Your task to perform on an android device: install app "Cash App" Image 0: 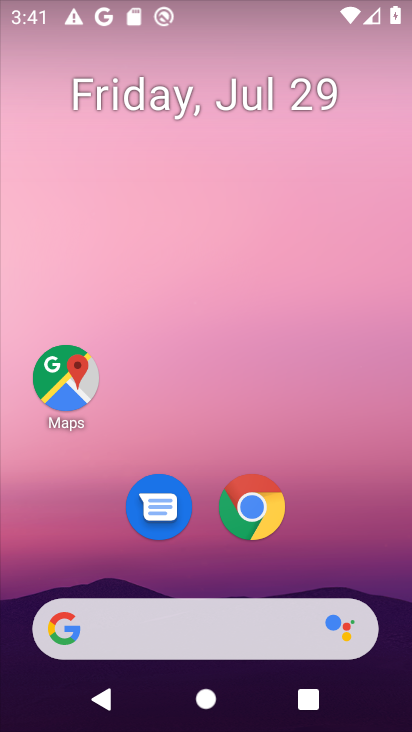
Step 0: click (182, 613)
Your task to perform on an android device: install app "Cash App" Image 1: 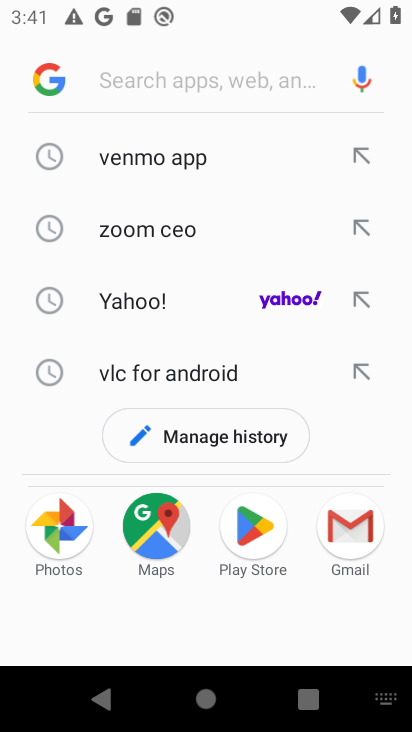
Step 1: type "cash app"
Your task to perform on an android device: install app "Cash App" Image 2: 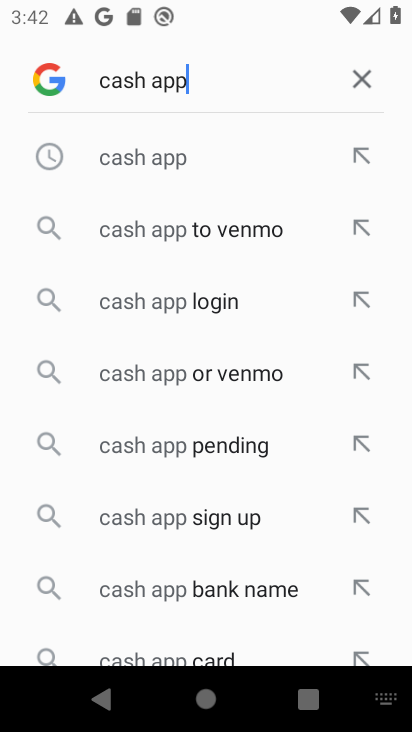
Step 2: click (191, 183)
Your task to perform on an android device: install app "Cash App" Image 3: 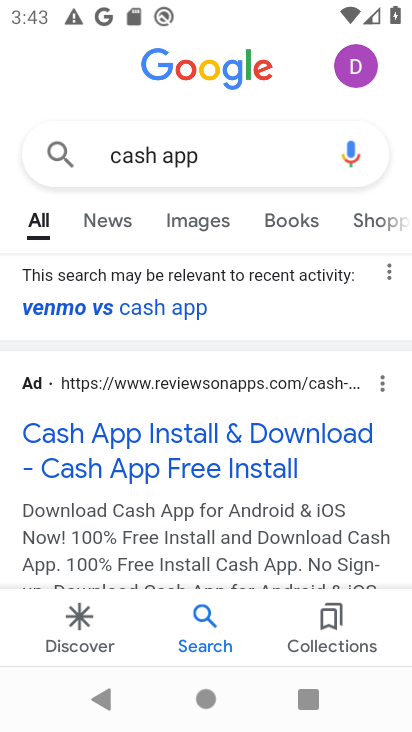
Step 3: task complete